Your task to perform on an android device: turn on translation in the chrome app Image 0: 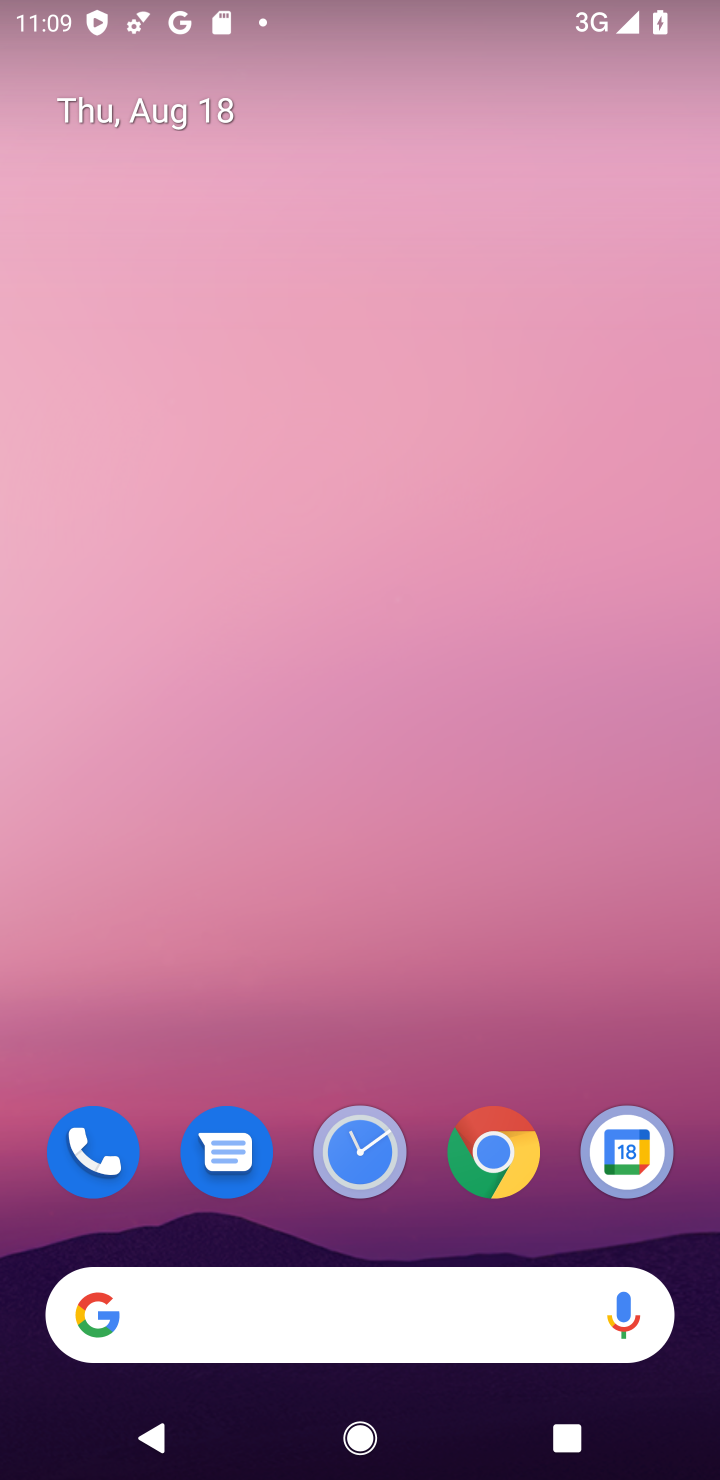
Step 0: click (510, 1163)
Your task to perform on an android device: turn on translation in the chrome app Image 1: 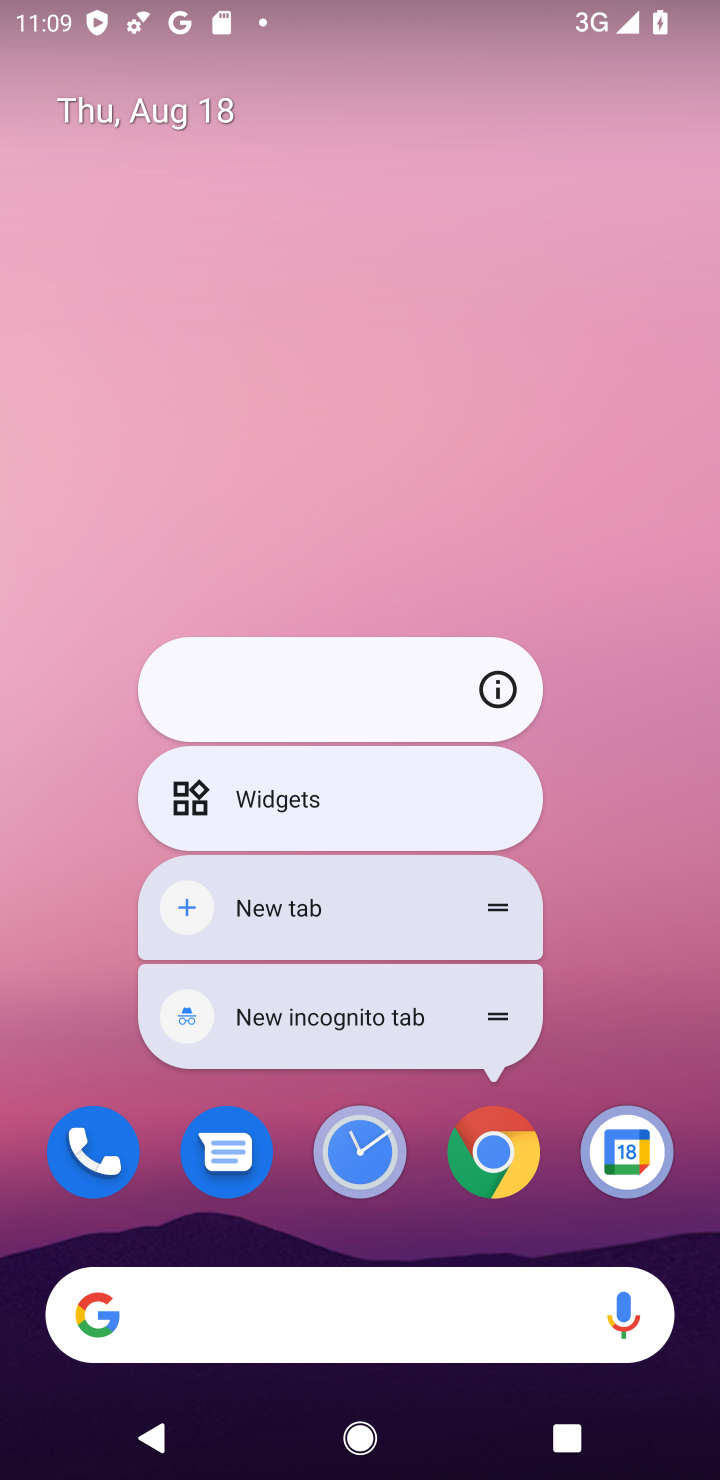
Step 1: click (500, 1151)
Your task to perform on an android device: turn on translation in the chrome app Image 2: 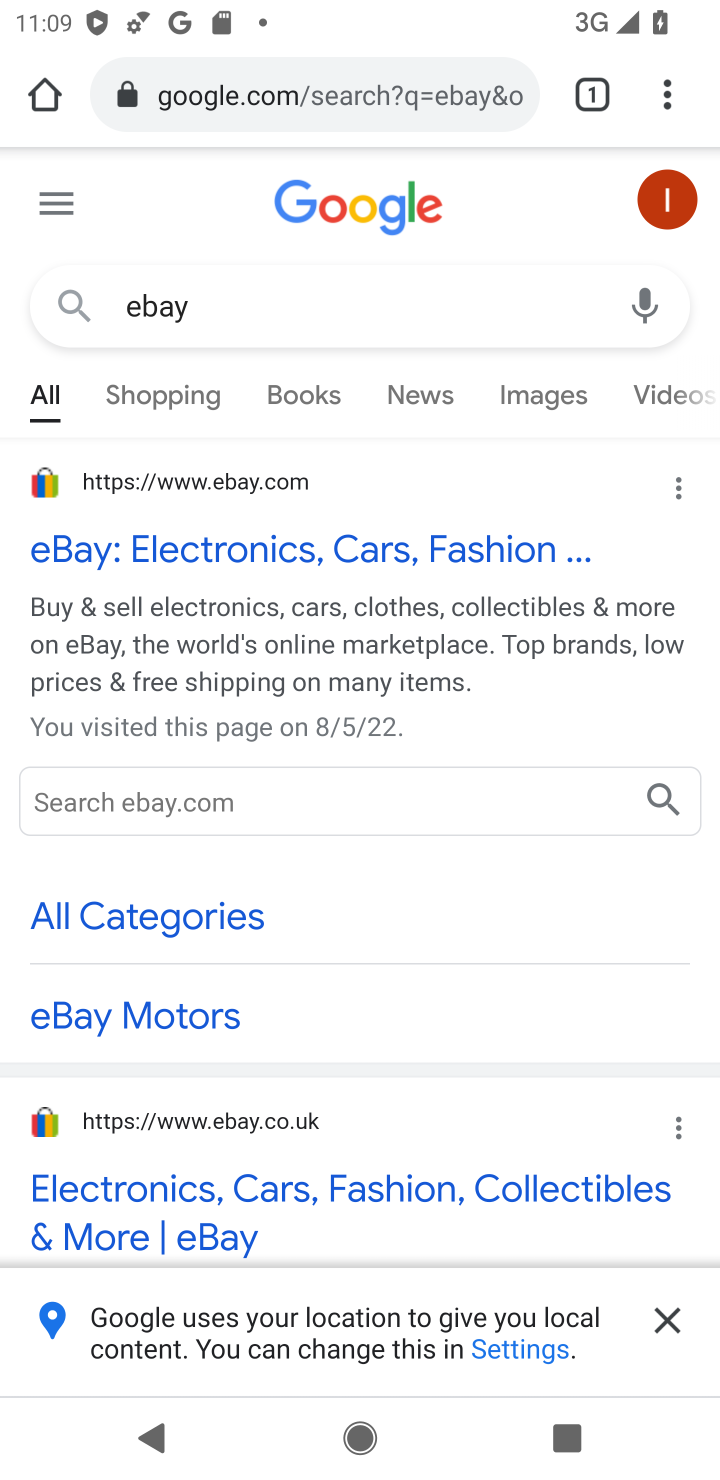
Step 2: click (668, 101)
Your task to perform on an android device: turn on translation in the chrome app Image 3: 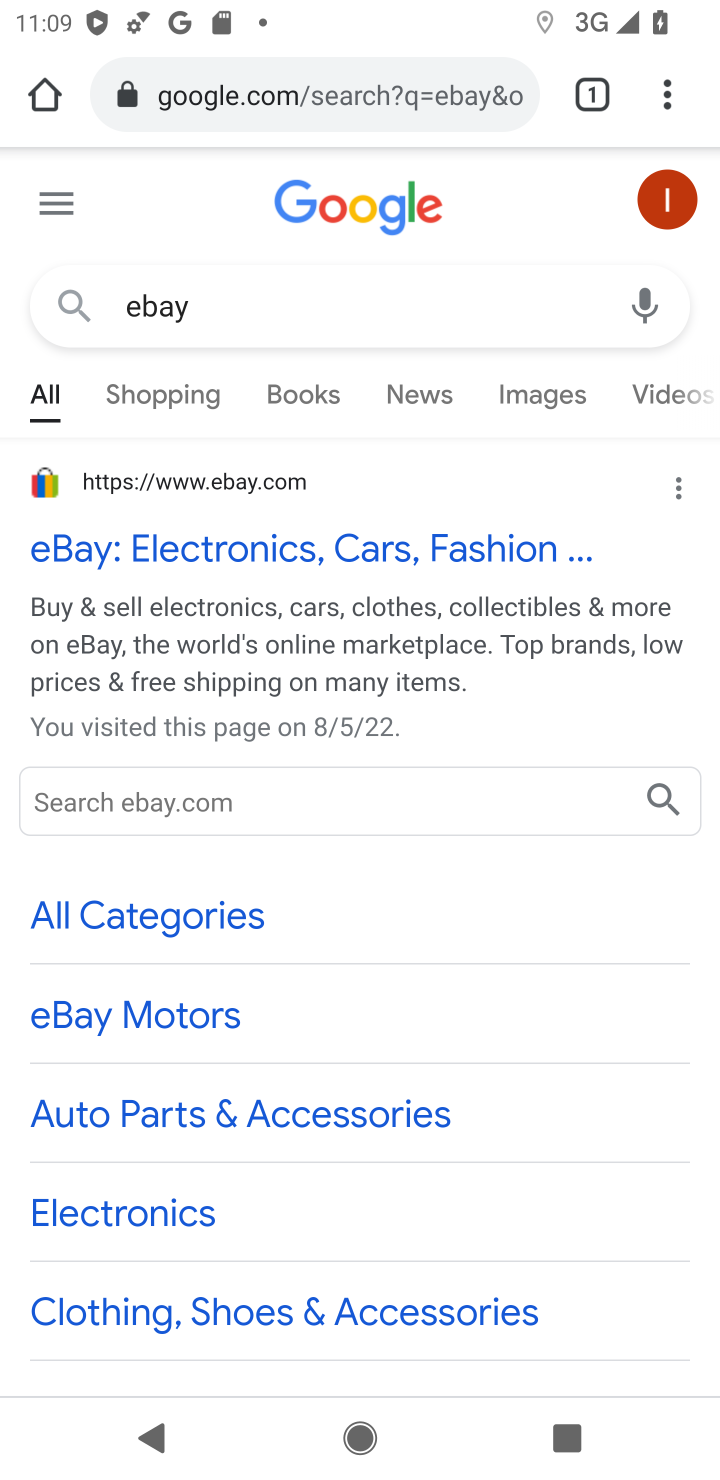
Step 3: click (668, 101)
Your task to perform on an android device: turn on translation in the chrome app Image 4: 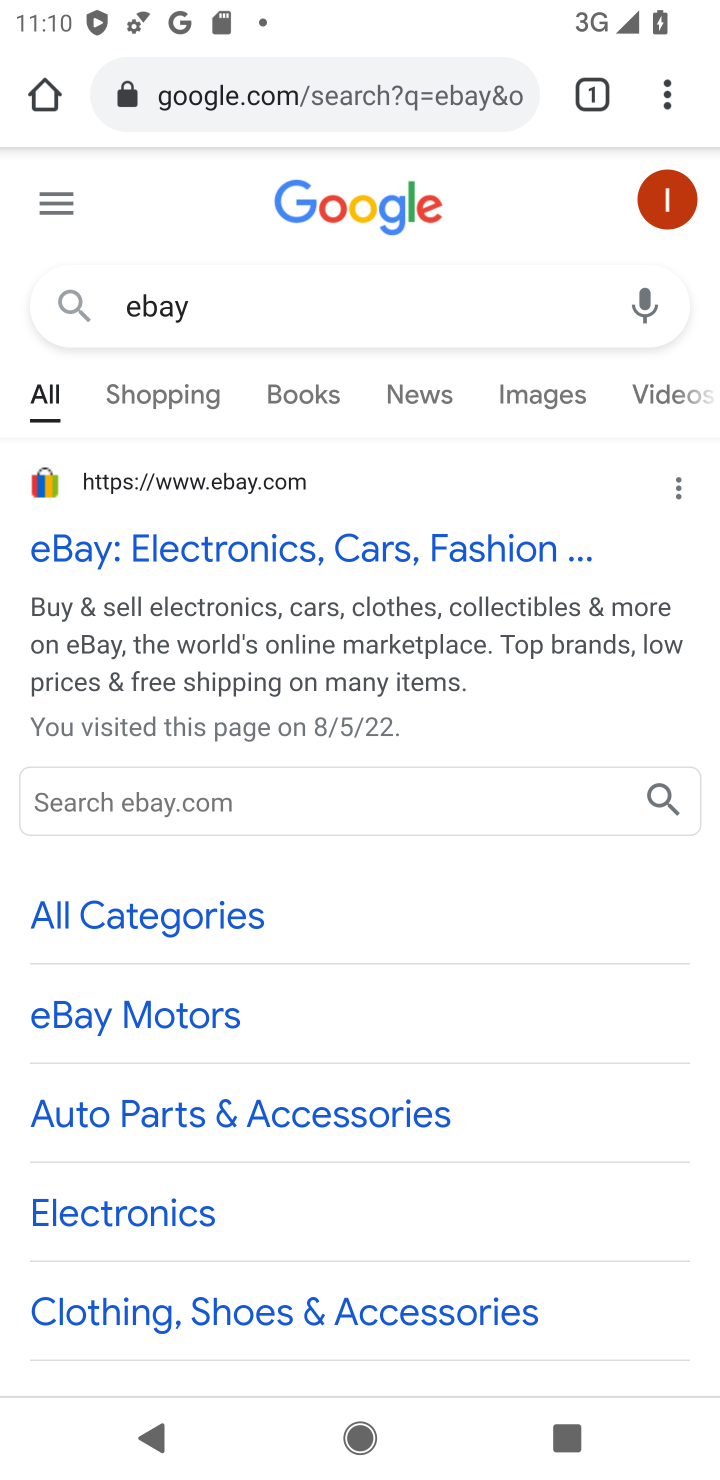
Step 4: click (668, 106)
Your task to perform on an android device: turn on translation in the chrome app Image 5: 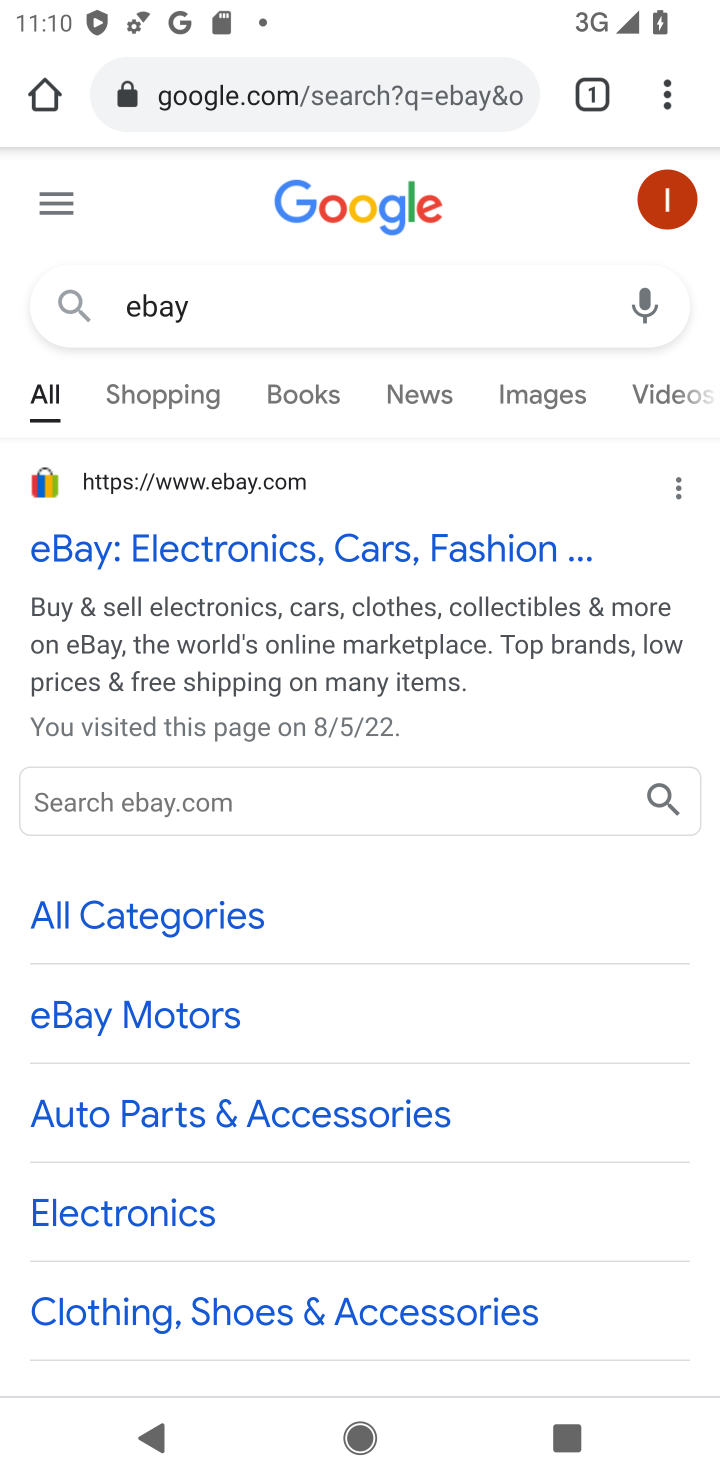
Step 5: click (668, 122)
Your task to perform on an android device: turn on translation in the chrome app Image 6: 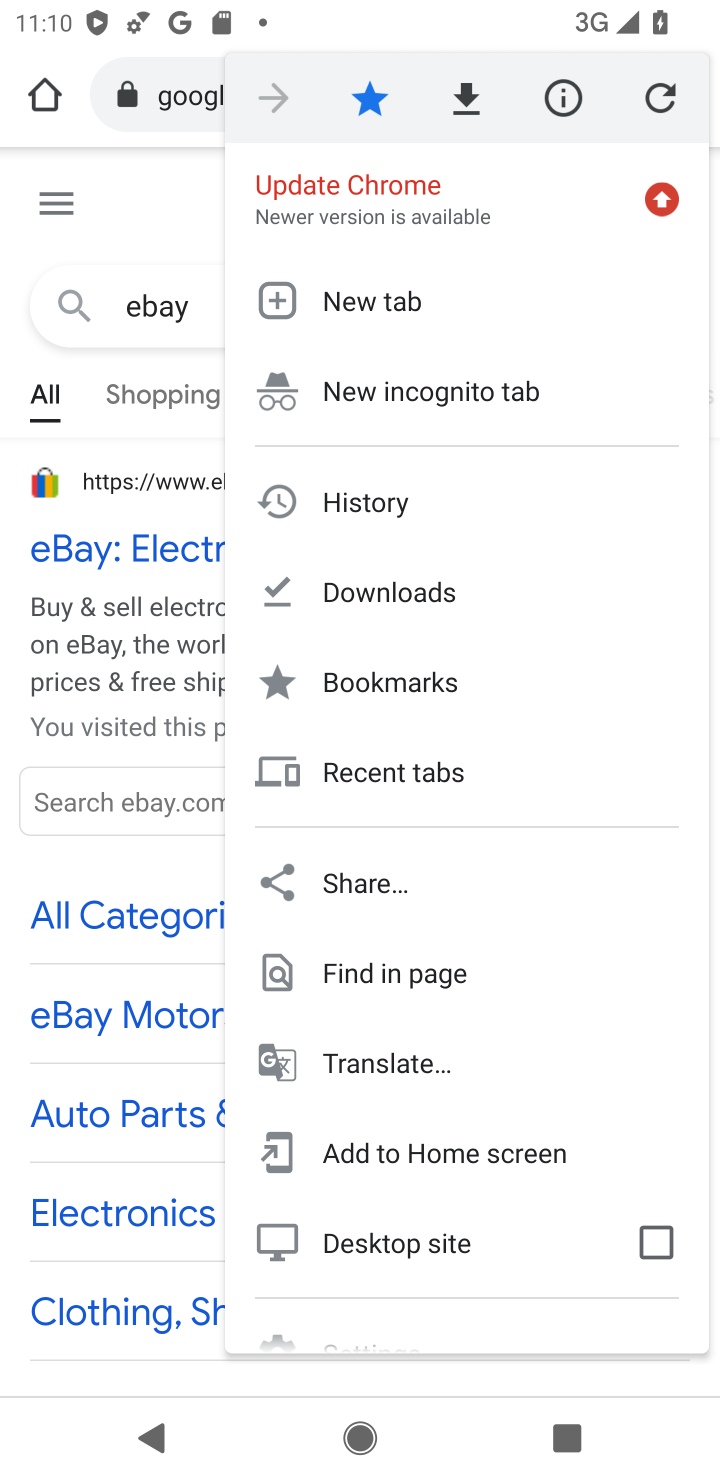
Step 6: drag from (449, 1054) to (498, 425)
Your task to perform on an android device: turn on translation in the chrome app Image 7: 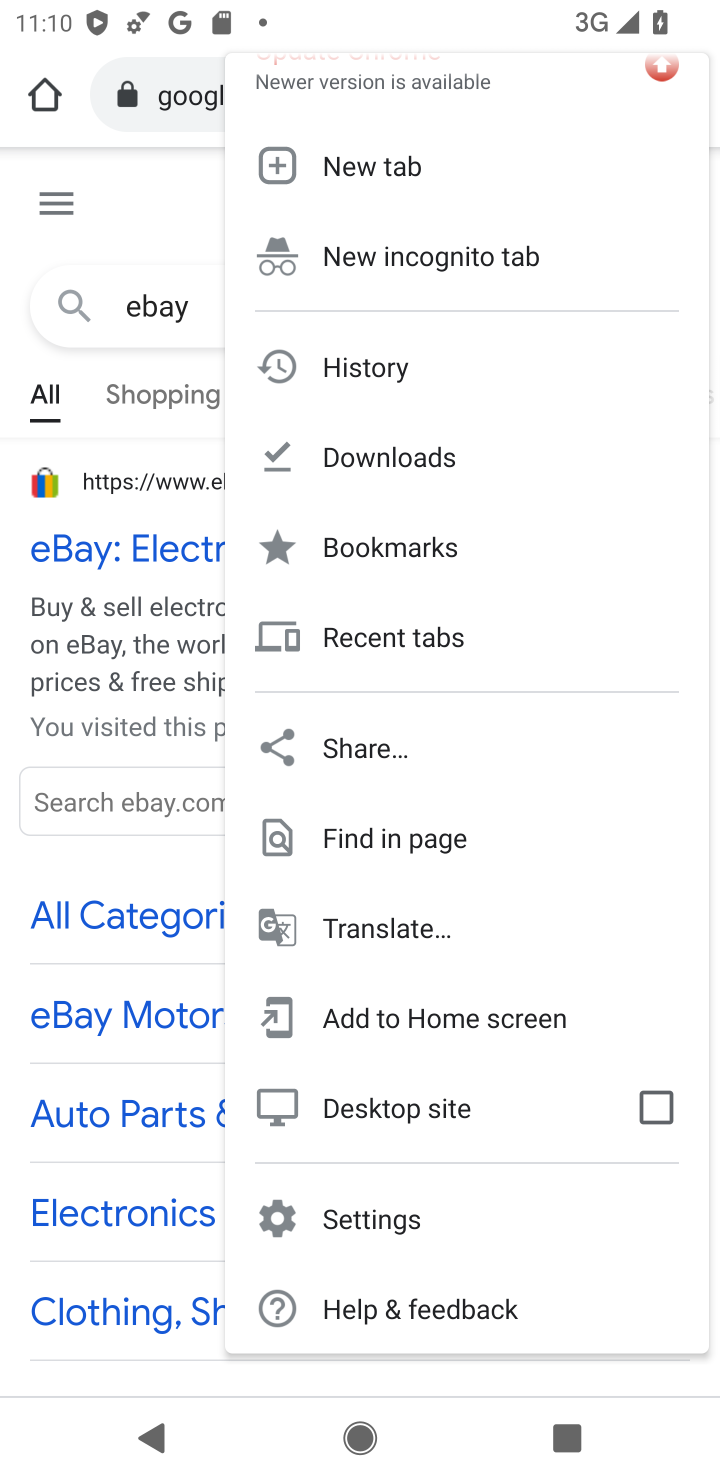
Step 7: click (410, 1217)
Your task to perform on an android device: turn on translation in the chrome app Image 8: 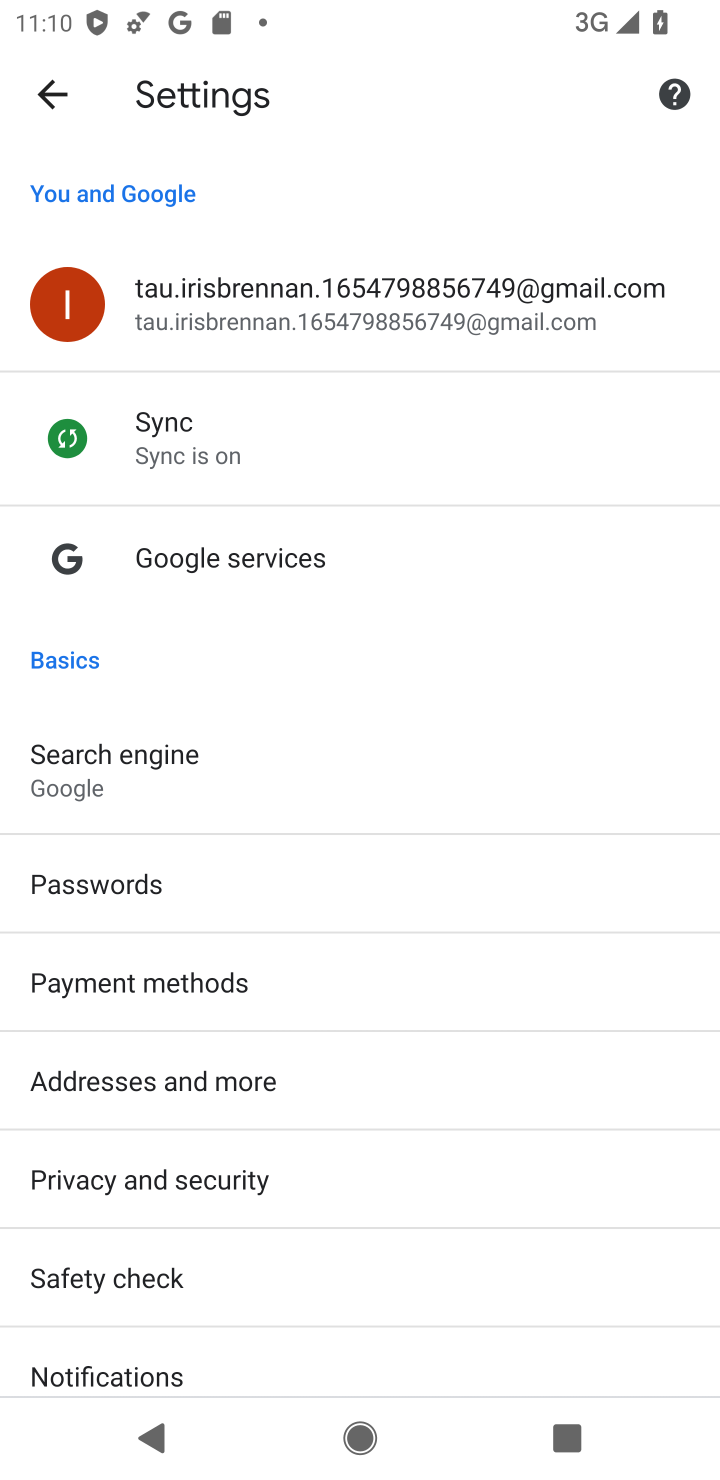
Step 8: drag from (412, 1194) to (511, 394)
Your task to perform on an android device: turn on translation in the chrome app Image 9: 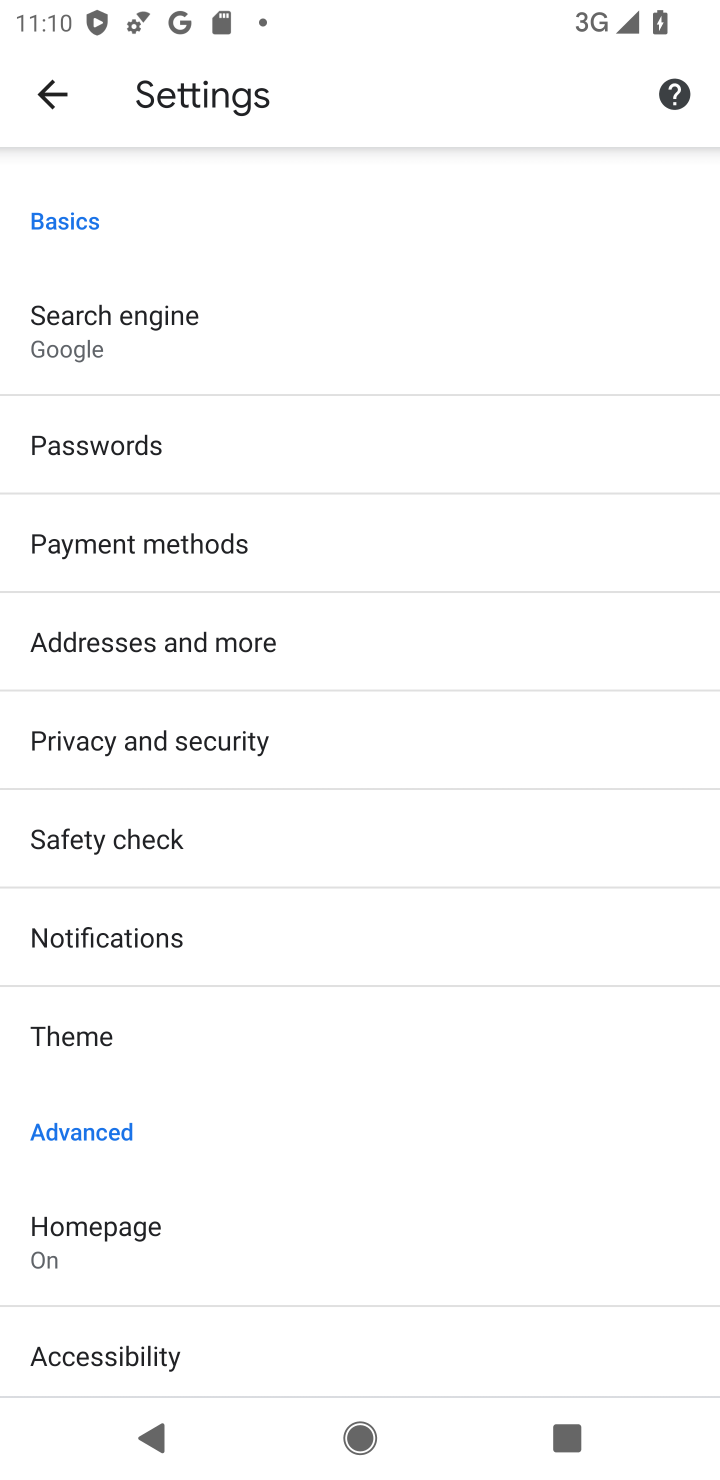
Step 9: drag from (352, 1186) to (357, 557)
Your task to perform on an android device: turn on translation in the chrome app Image 10: 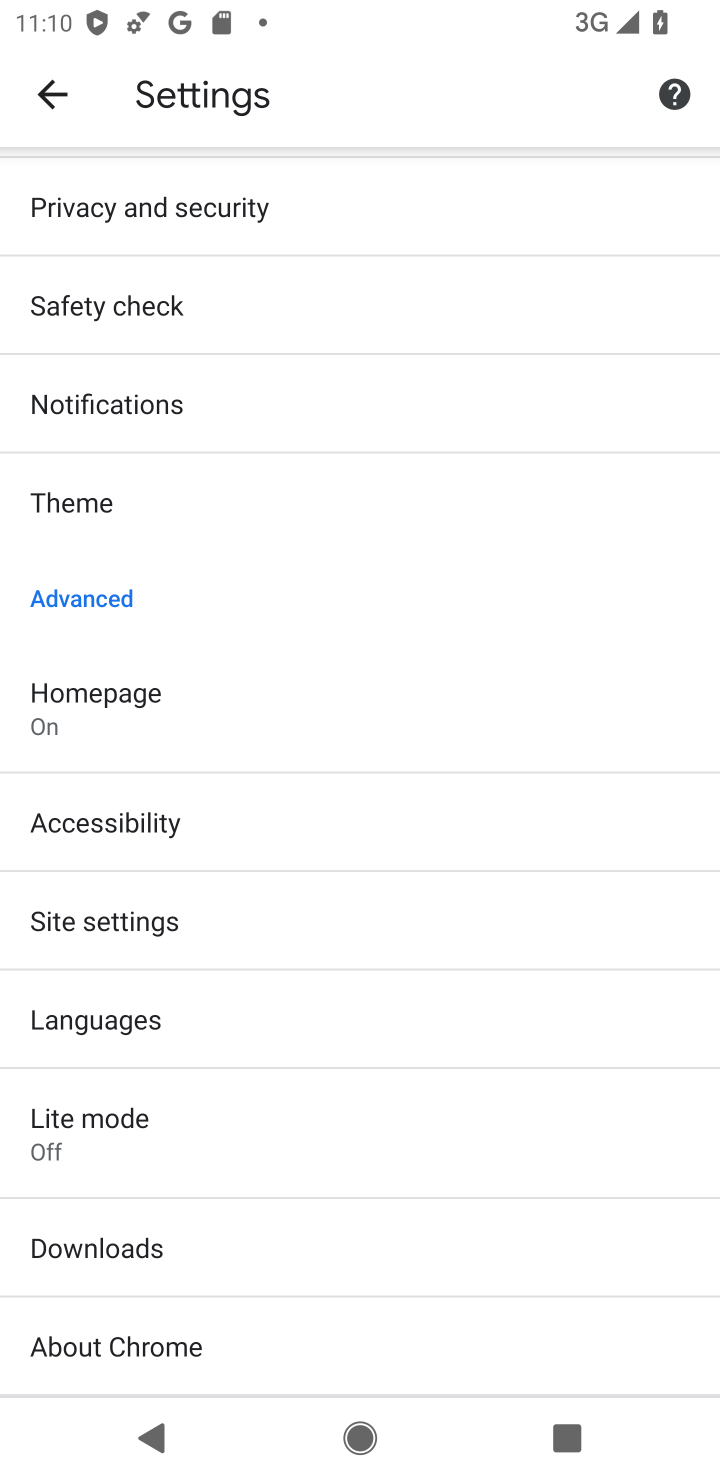
Step 10: click (286, 1023)
Your task to perform on an android device: turn on translation in the chrome app Image 11: 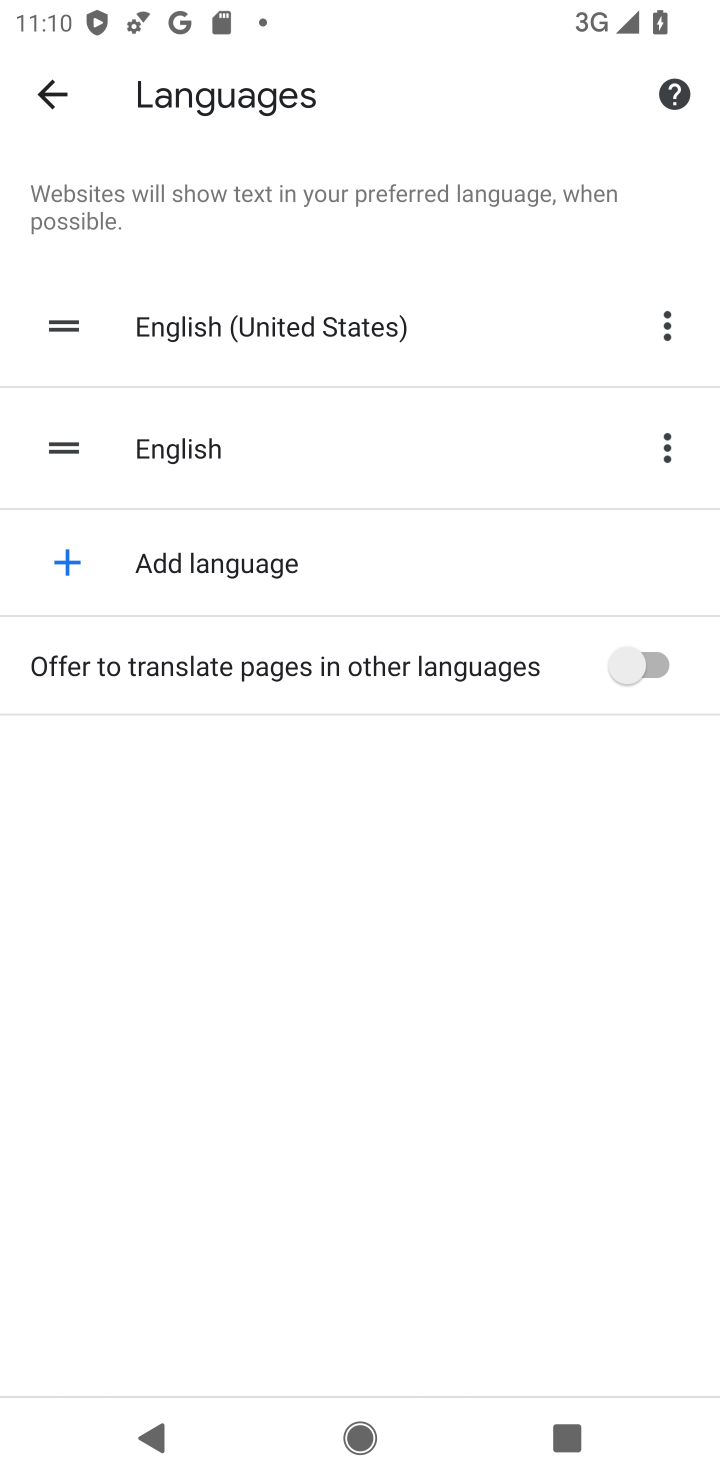
Step 11: click (644, 658)
Your task to perform on an android device: turn on translation in the chrome app Image 12: 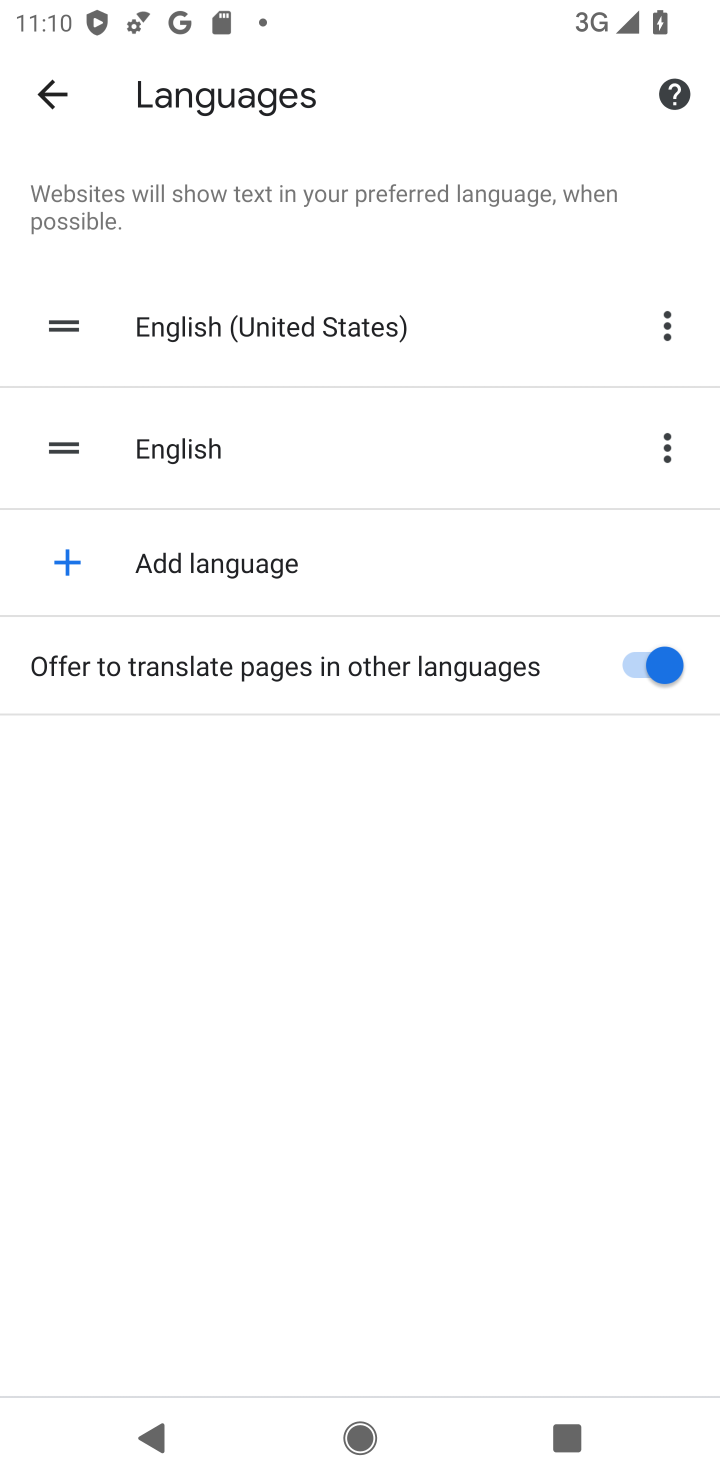
Step 12: task complete